Your task to perform on an android device: add a contact Image 0: 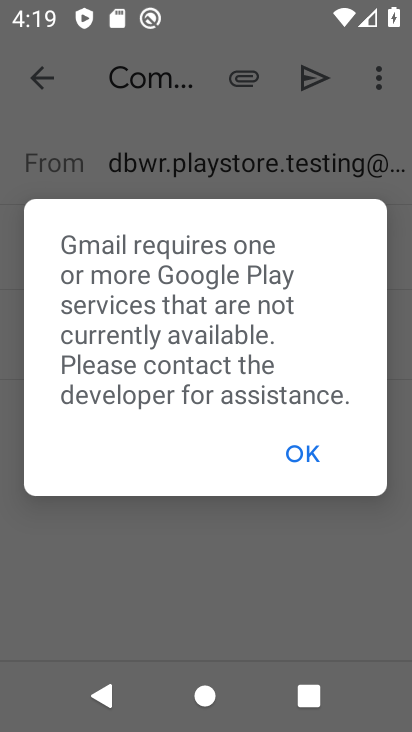
Step 0: press home button
Your task to perform on an android device: add a contact Image 1: 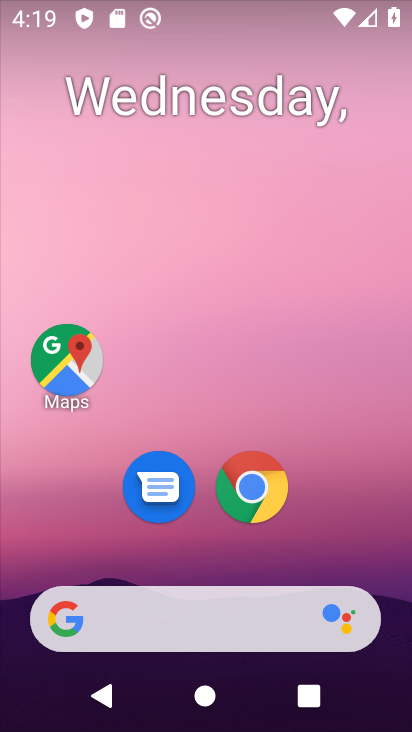
Step 1: drag from (206, 553) to (274, 126)
Your task to perform on an android device: add a contact Image 2: 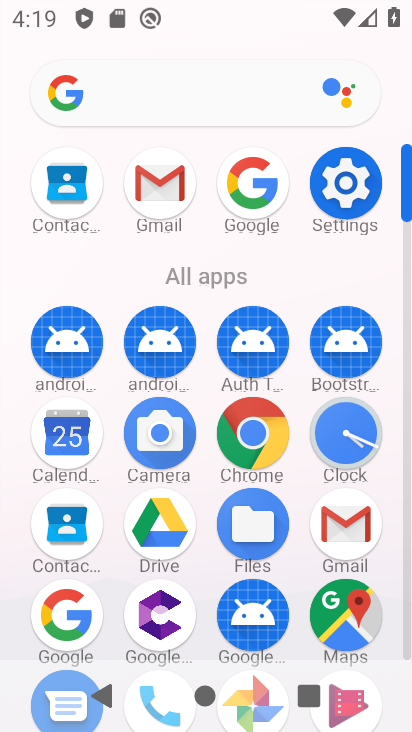
Step 2: click (64, 519)
Your task to perform on an android device: add a contact Image 3: 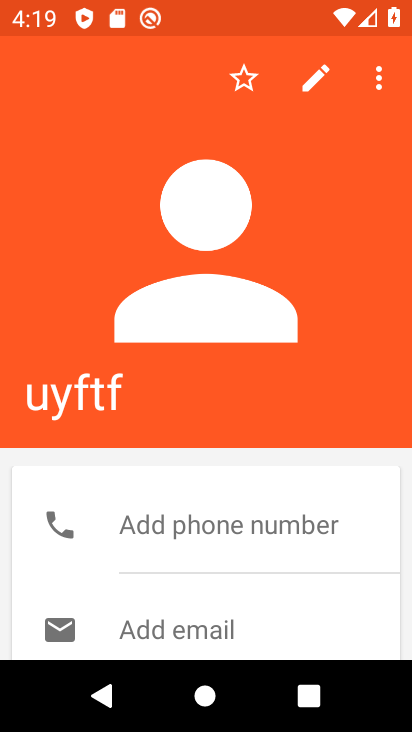
Step 3: task complete